Your task to perform on an android device: check google app version Image 0: 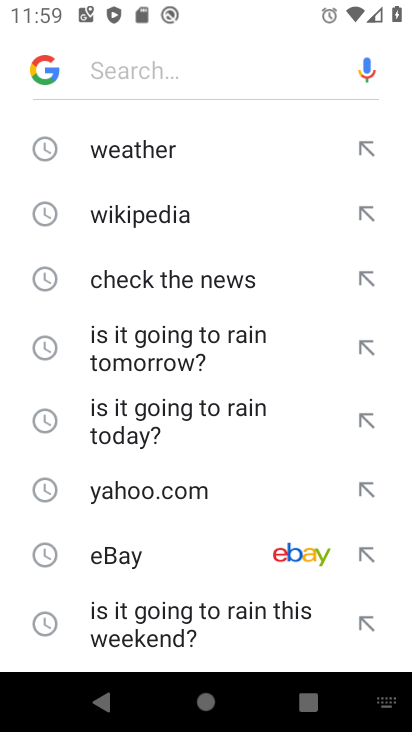
Step 0: click (43, 71)
Your task to perform on an android device: check google app version Image 1: 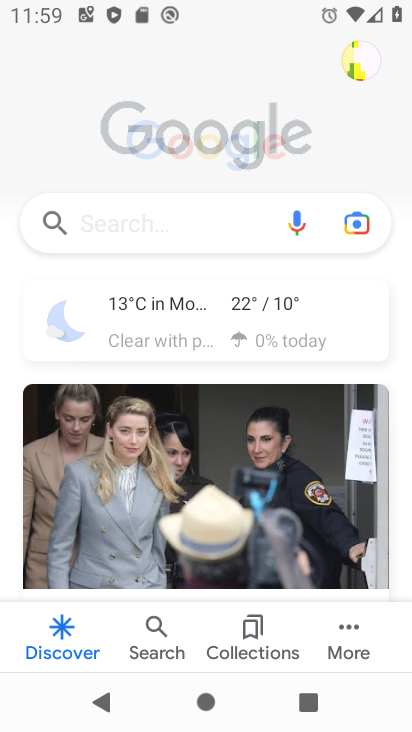
Step 1: click (43, 71)
Your task to perform on an android device: check google app version Image 2: 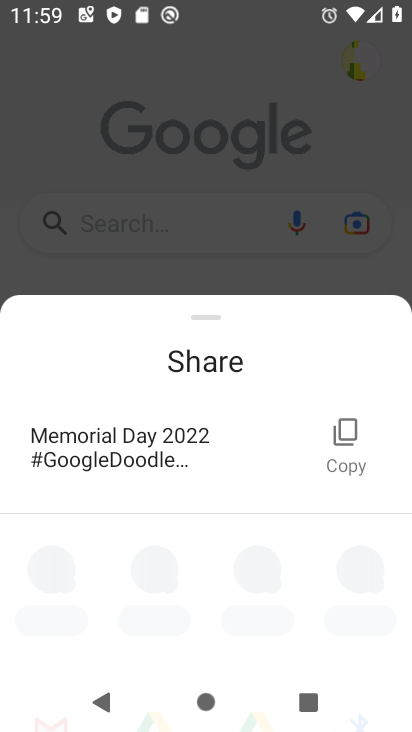
Step 2: click (159, 289)
Your task to perform on an android device: check google app version Image 3: 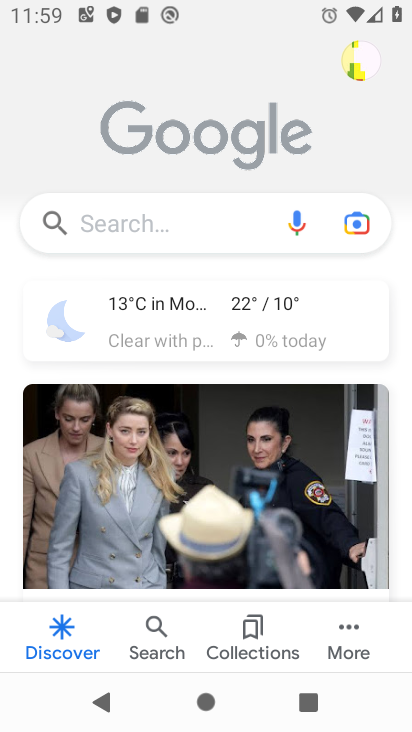
Step 3: drag from (154, 368) to (190, 118)
Your task to perform on an android device: check google app version Image 4: 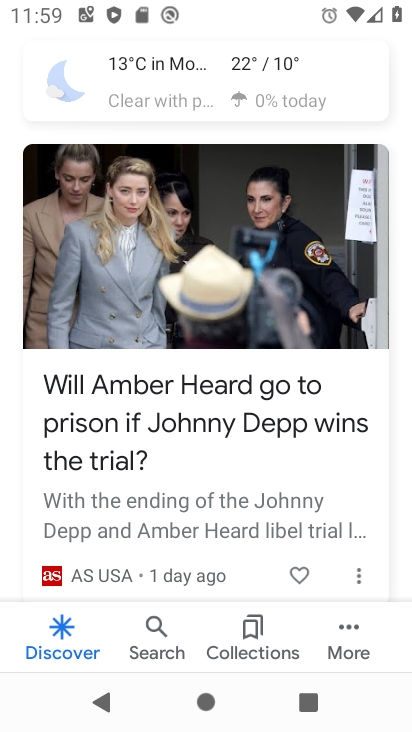
Step 4: click (333, 631)
Your task to perform on an android device: check google app version Image 5: 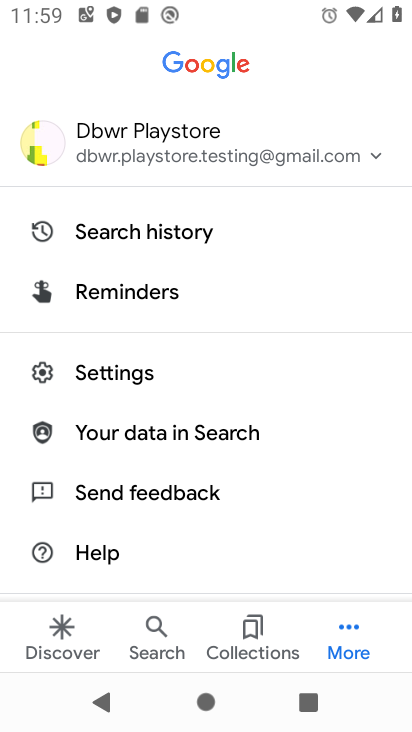
Step 5: click (150, 377)
Your task to perform on an android device: check google app version Image 6: 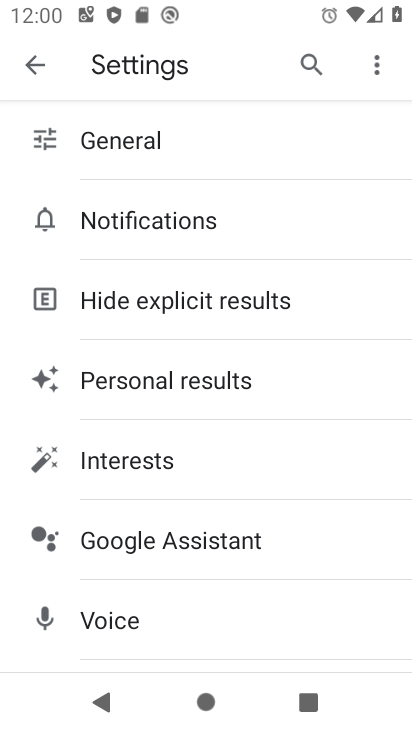
Step 6: click (165, 121)
Your task to perform on an android device: check google app version Image 7: 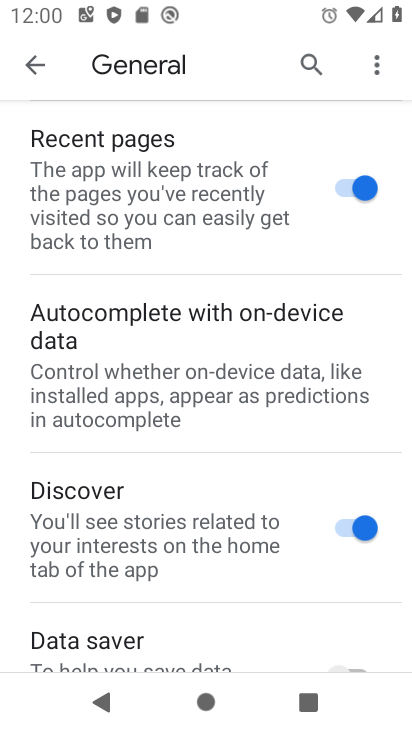
Step 7: click (40, 76)
Your task to perform on an android device: check google app version Image 8: 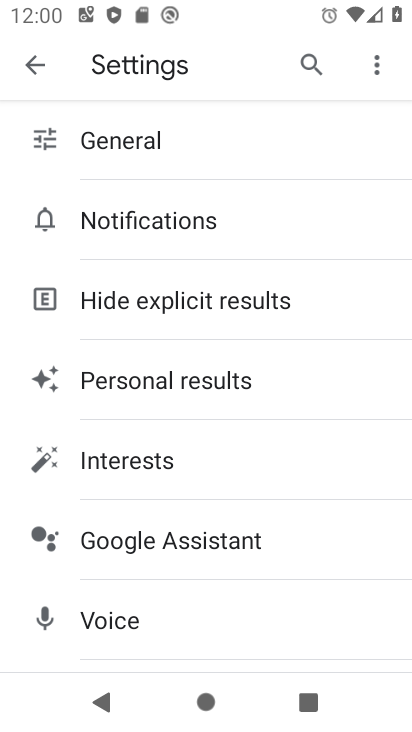
Step 8: drag from (185, 646) to (251, 256)
Your task to perform on an android device: check google app version Image 9: 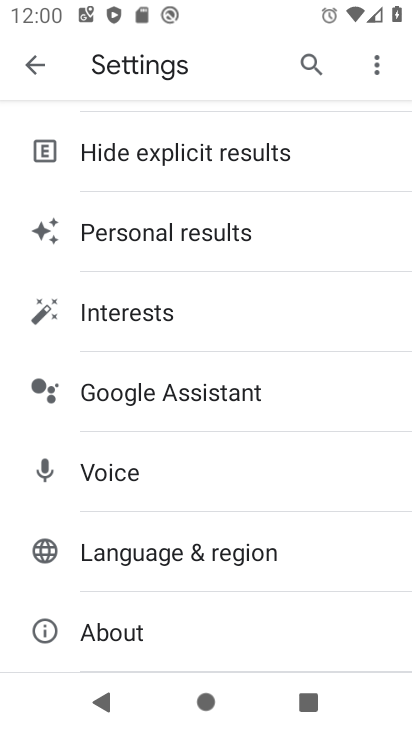
Step 9: click (165, 640)
Your task to perform on an android device: check google app version Image 10: 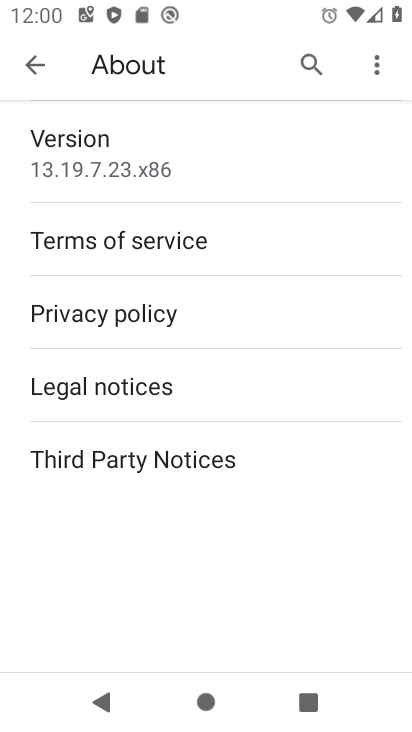
Step 10: task complete